Your task to perform on an android device: Open Google Maps and go to "Timeline" Image 0: 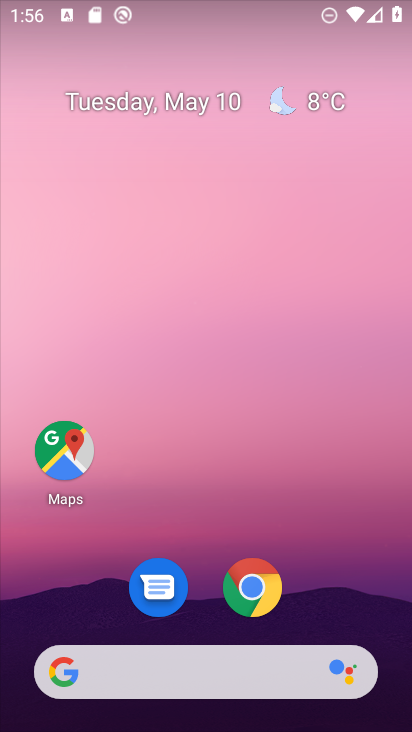
Step 0: drag from (396, 678) to (388, 246)
Your task to perform on an android device: Open Google Maps and go to "Timeline" Image 1: 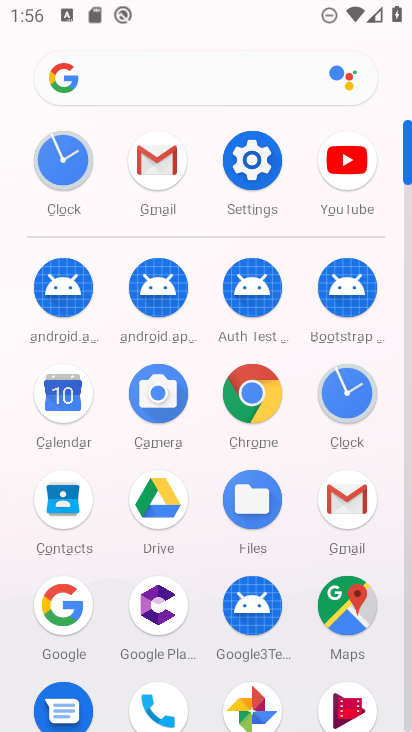
Step 1: click (336, 602)
Your task to perform on an android device: Open Google Maps and go to "Timeline" Image 2: 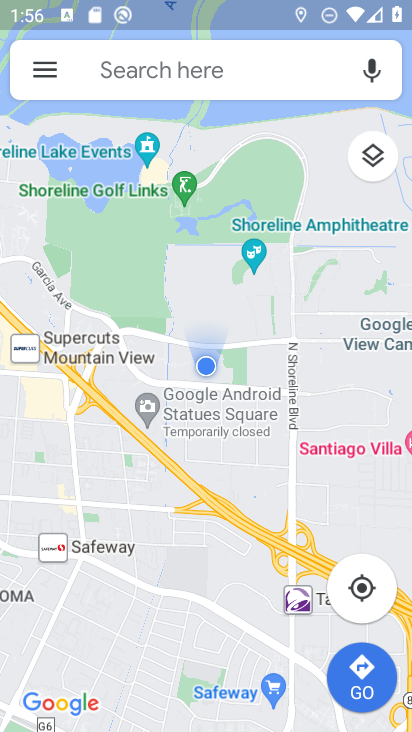
Step 2: click (43, 71)
Your task to perform on an android device: Open Google Maps and go to "Timeline" Image 3: 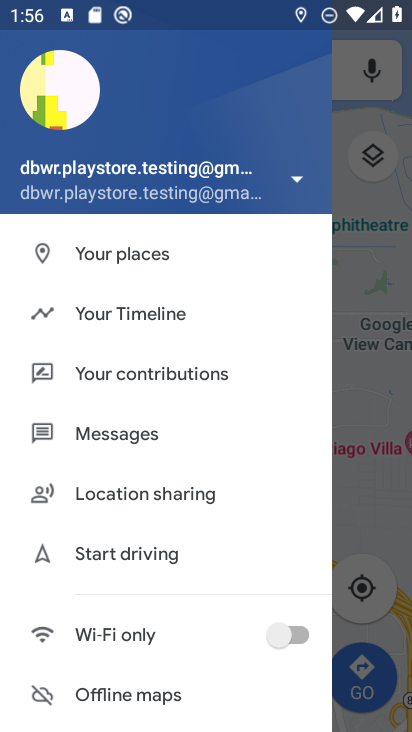
Step 3: click (114, 307)
Your task to perform on an android device: Open Google Maps and go to "Timeline" Image 4: 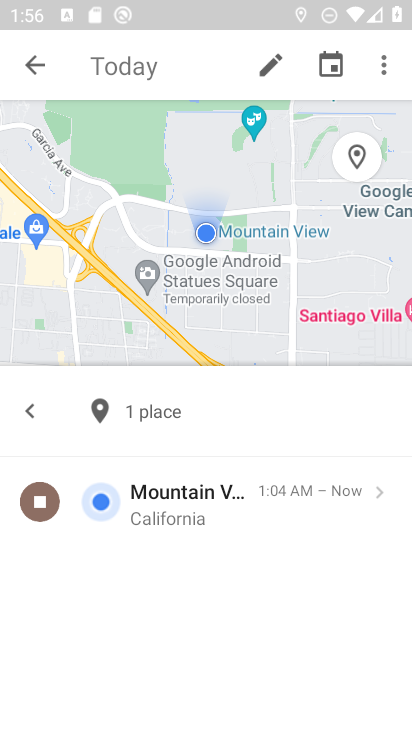
Step 4: task complete